Your task to perform on an android device: turn on bluetooth scan Image 0: 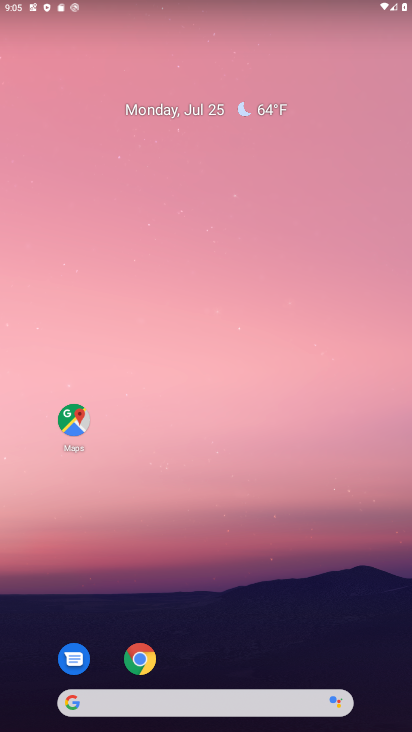
Step 0: press home button
Your task to perform on an android device: turn on bluetooth scan Image 1: 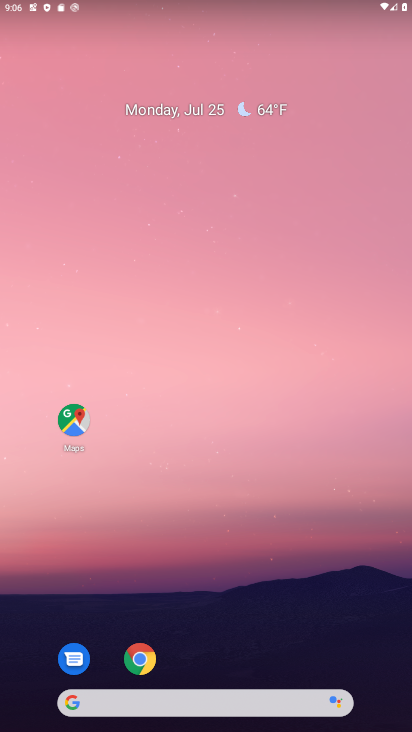
Step 1: drag from (335, 646) to (370, 117)
Your task to perform on an android device: turn on bluetooth scan Image 2: 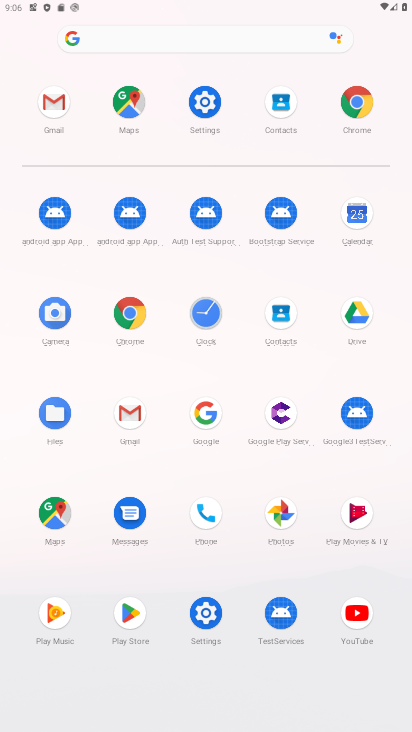
Step 2: click (207, 114)
Your task to perform on an android device: turn on bluetooth scan Image 3: 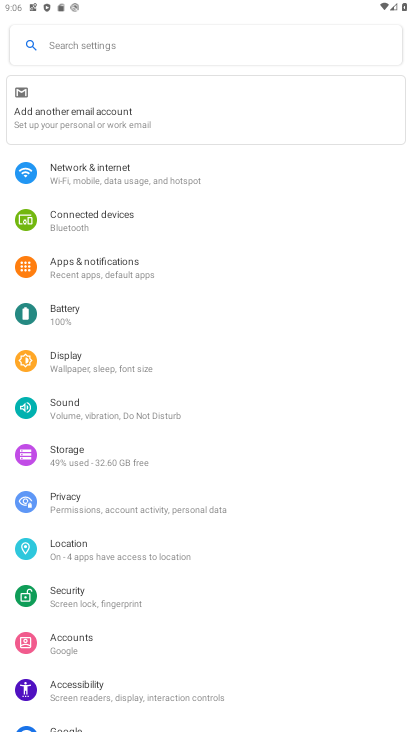
Step 3: drag from (310, 239) to (326, 369)
Your task to perform on an android device: turn on bluetooth scan Image 4: 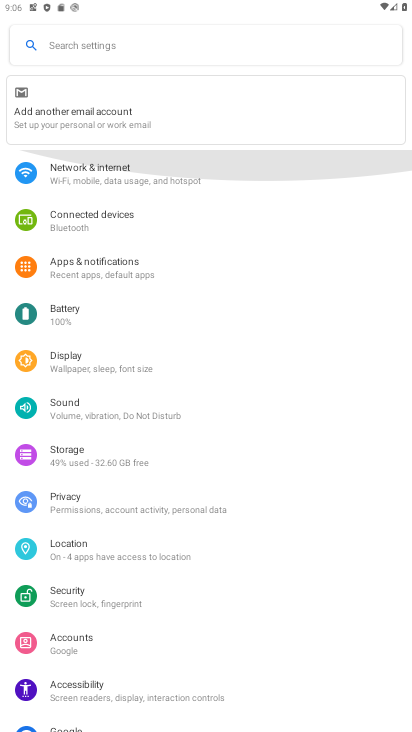
Step 4: drag from (328, 379) to (328, 311)
Your task to perform on an android device: turn on bluetooth scan Image 5: 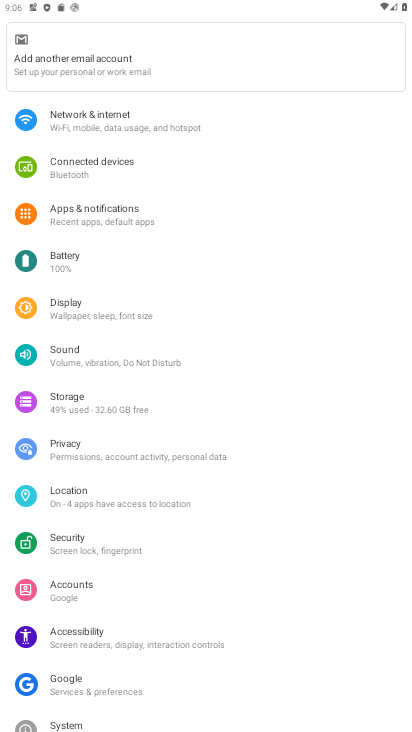
Step 5: drag from (354, 499) to (359, 398)
Your task to perform on an android device: turn on bluetooth scan Image 6: 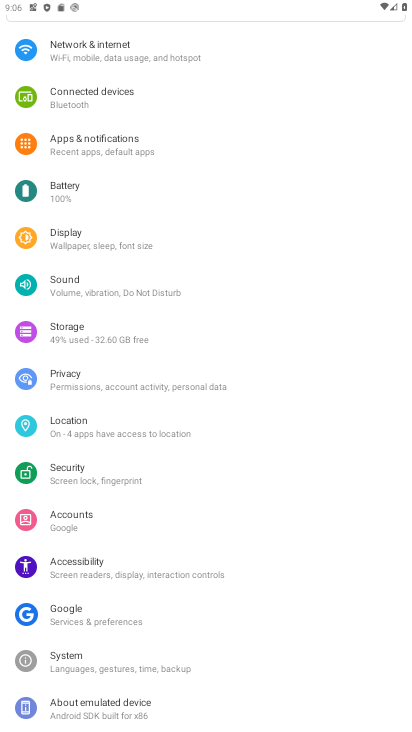
Step 6: drag from (341, 493) to (353, 394)
Your task to perform on an android device: turn on bluetooth scan Image 7: 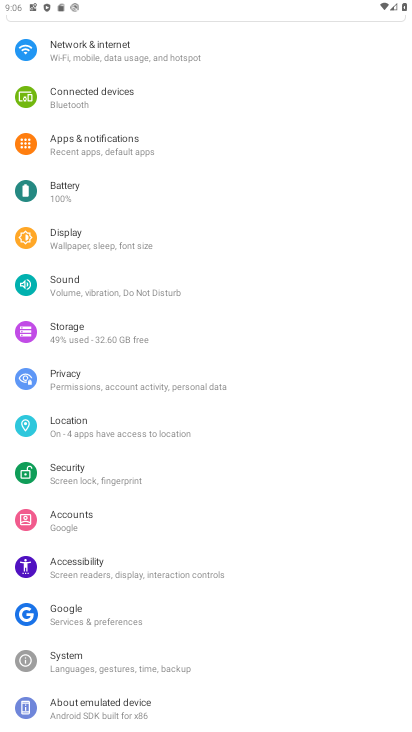
Step 7: click (155, 431)
Your task to perform on an android device: turn on bluetooth scan Image 8: 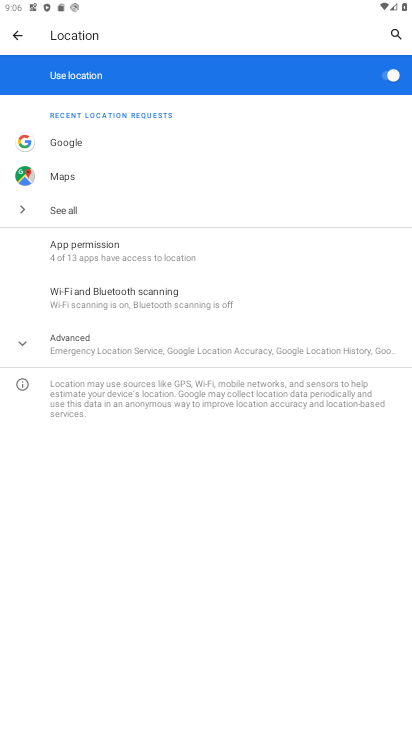
Step 8: click (246, 292)
Your task to perform on an android device: turn on bluetooth scan Image 9: 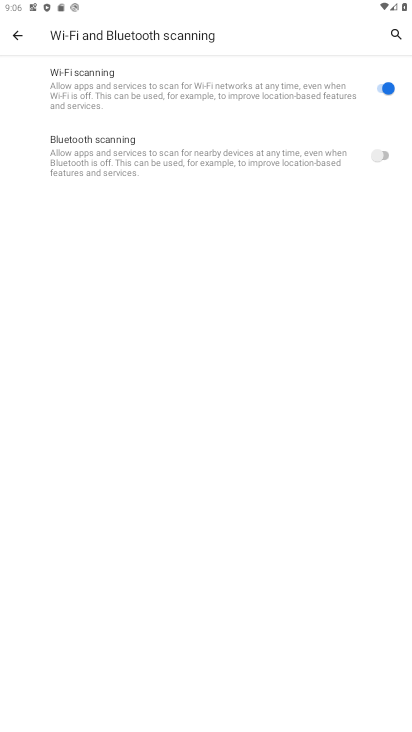
Step 9: click (372, 154)
Your task to perform on an android device: turn on bluetooth scan Image 10: 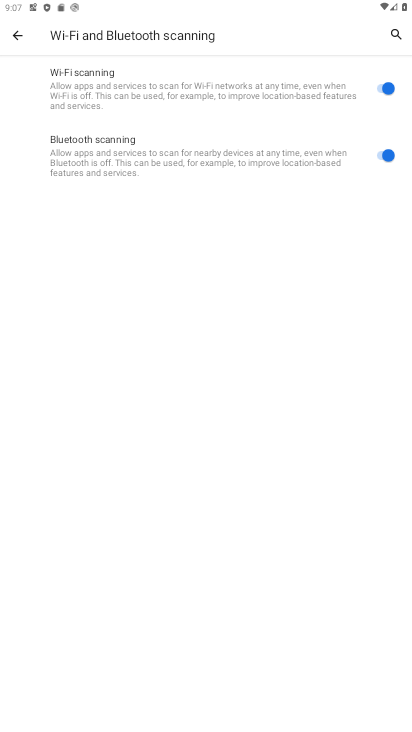
Step 10: task complete